Your task to perform on an android device: Set the phone to "Do not disturb". Image 0: 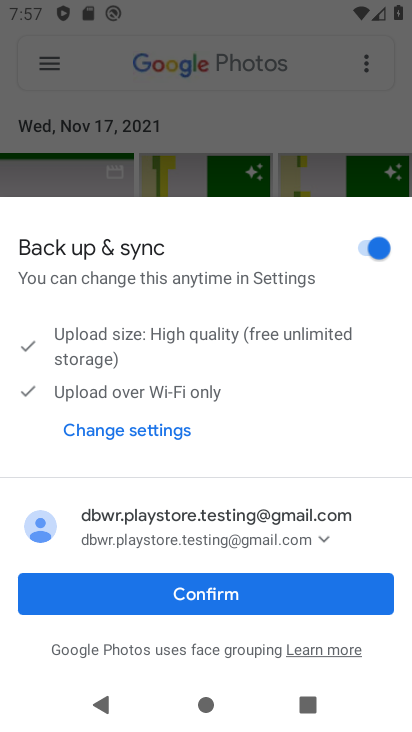
Step 0: press home button
Your task to perform on an android device: Set the phone to "Do not disturb". Image 1: 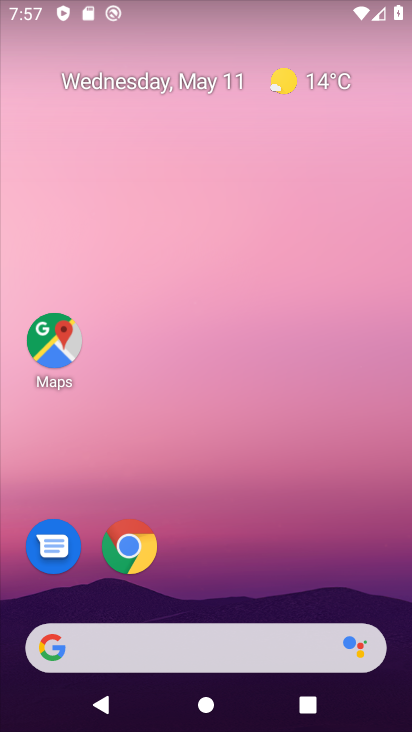
Step 1: drag from (137, 670) to (179, 29)
Your task to perform on an android device: Set the phone to "Do not disturb". Image 2: 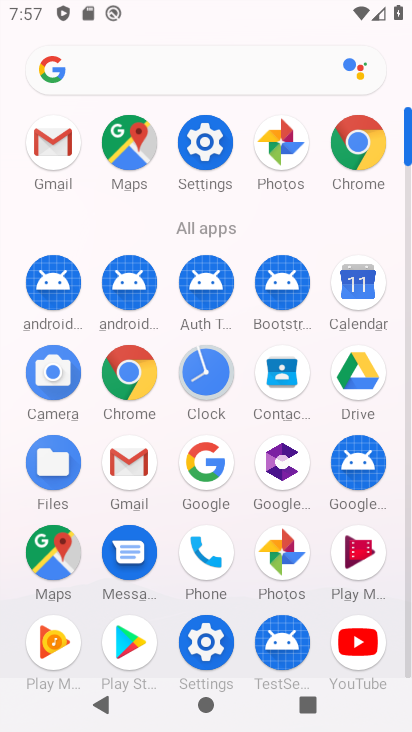
Step 2: click (209, 622)
Your task to perform on an android device: Set the phone to "Do not disturb". Image 3: 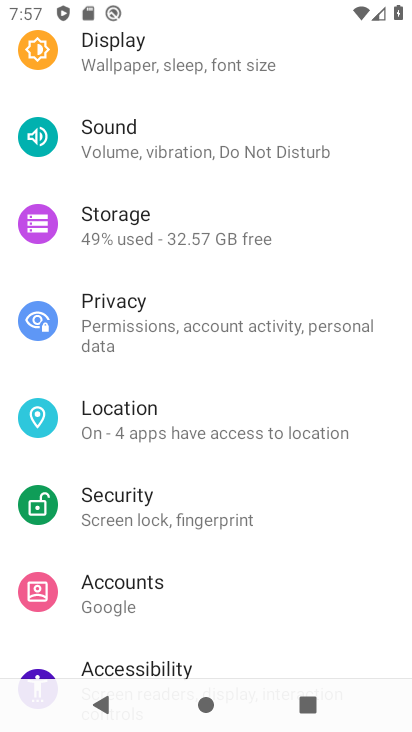
Step 3: click (125, 168)
Your task to perform on an android device: Set the phone to "Do not disturb". Image 4: 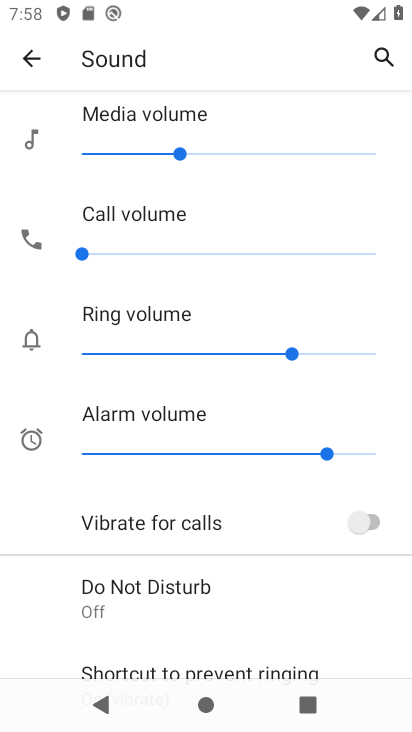
Step 4: click (212, 596)
Your task to perform on an android device: Set the phone to "Do not disturb". Image 5: 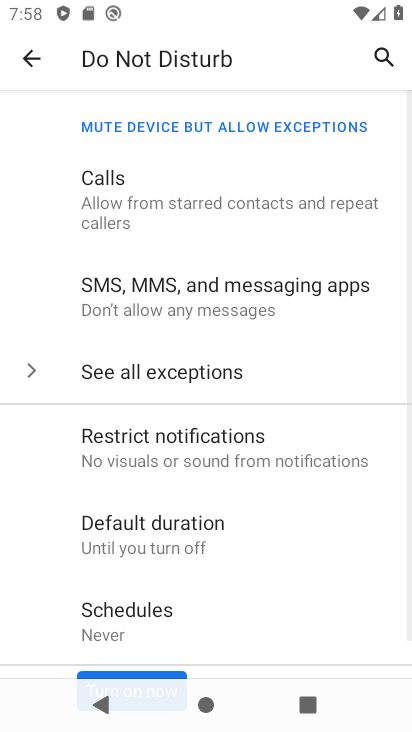
Step 5: drag from (212, 596) to (161, 161)
Your task to perform on an android device: Set the phone to "Do not disturb". Image 6: 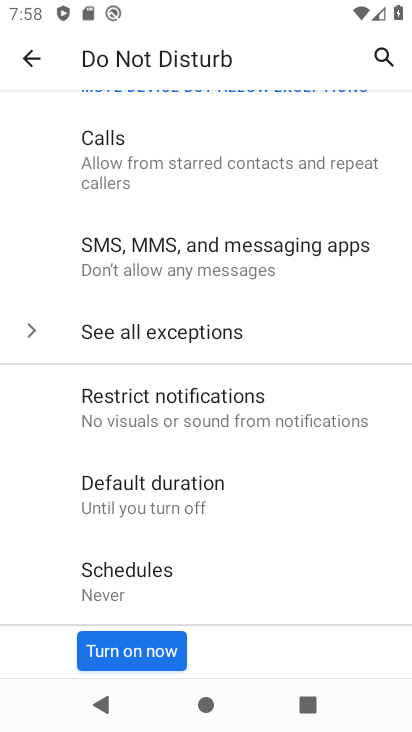
Step 6: click (132, 656)
Your task to perform on an android device: Set the phone to "Do not disturb". Image 7: 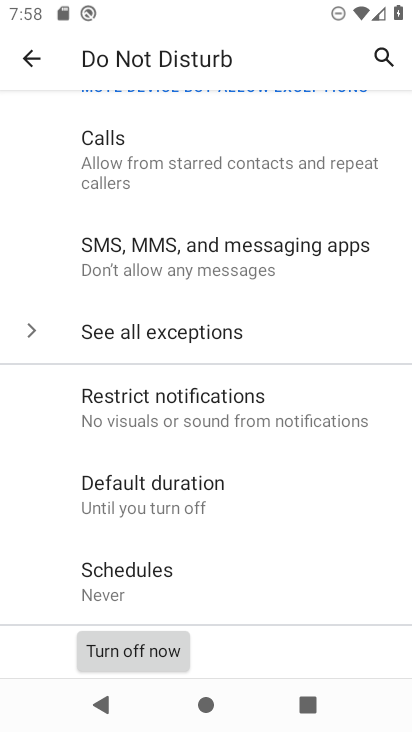
Step 7: task complete